Your task to perform on an android device: Is it going to rain today? Image 0: 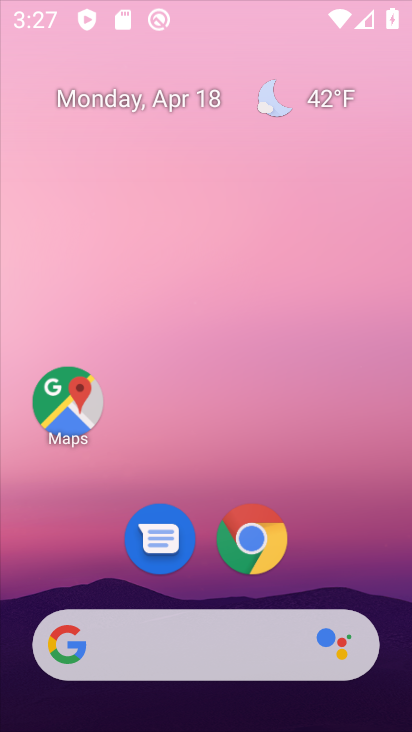
Step 0: drag from (195, 106) to (202, 39)
Your task to perform on an android device: Is it going to rain today? Image 1: 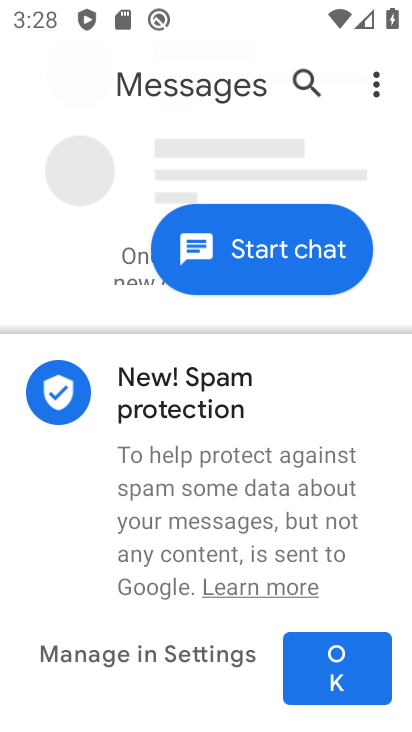
Step 1: press back button
Your task to perform on an android device: Is it going to rain today? Image 2: 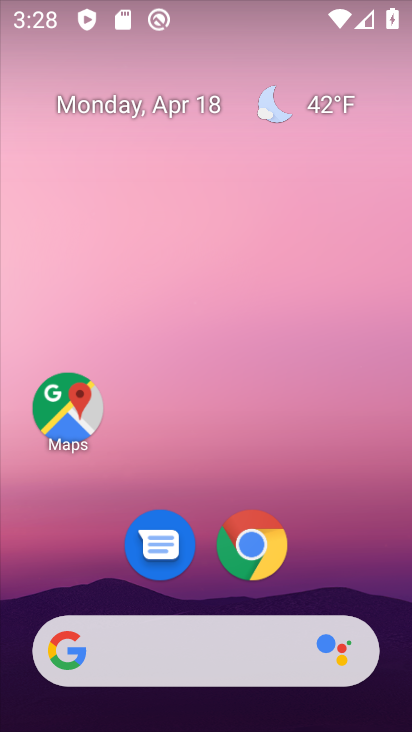
Step 2: click (238, 648)
Your task to perform on an android device: Is it going to rain today? Image 3: 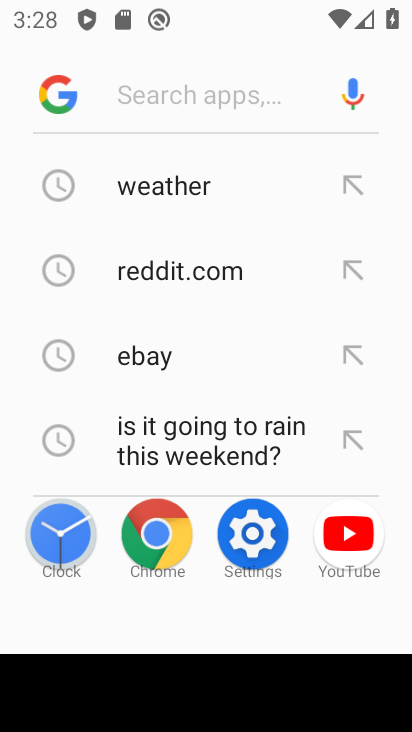
Step 3: click (196, 188)
Your task to perform on an android device: Is it going to rain today? Image 4: 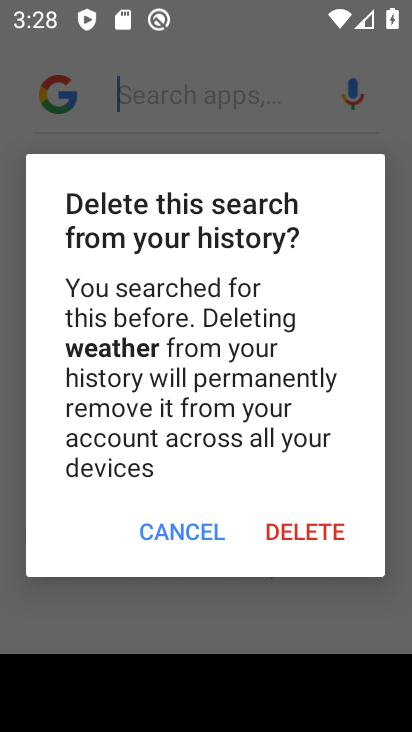
Step 4: click (186, 535)
Your task to perform on an android device: Is it going to rain today? Image 5: 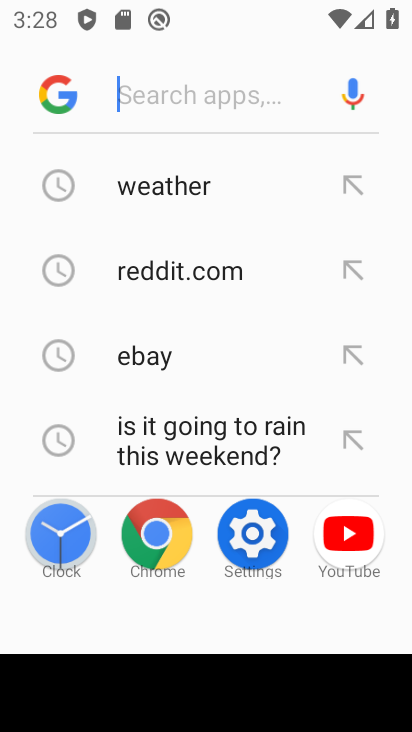
Step 5: click (169, 182)
Your task to perform on an android device: Is it going to rain today? Image 6: 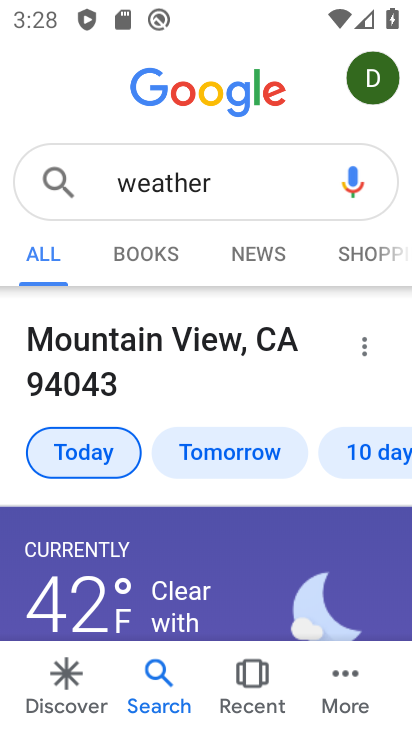
Step 6: task complete